Your task to perform on an android device: turn off translation in the chrome app Image 0: 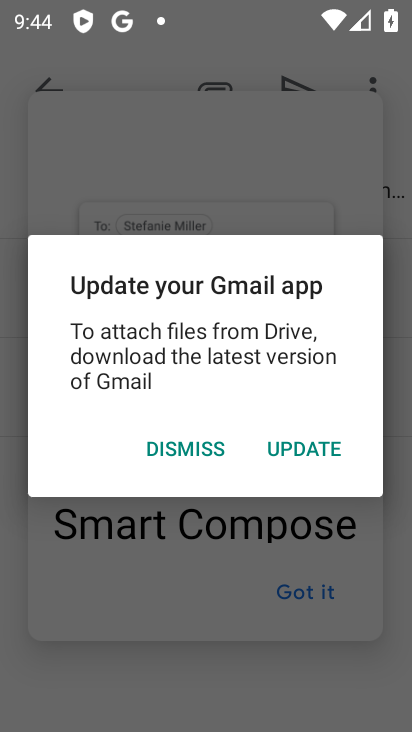
Step 0: press home button
Your task to perform on an android device: turn off translation in the chrome app Image 1: 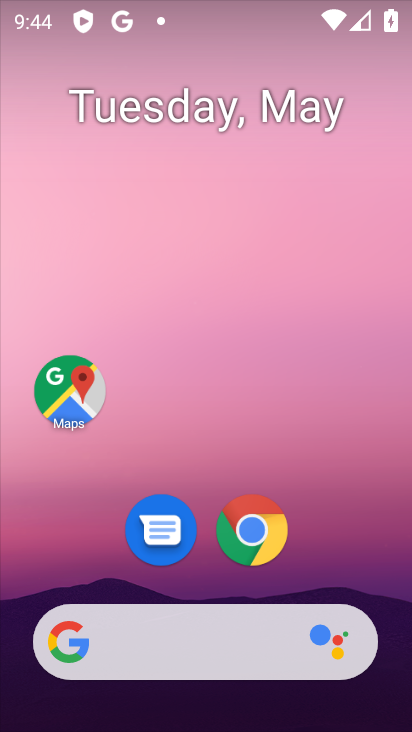
Step 1: click (248, 535)
Your task to perform on an android device: turn off translation in the chrome app Image 2: 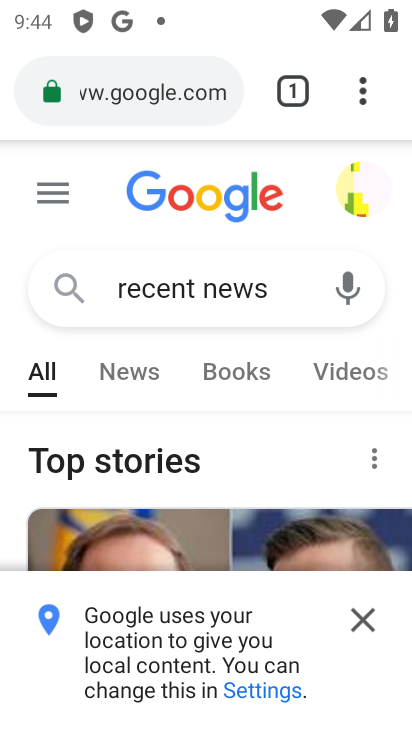
Step 2: click (361, 86)
Your task to perform on an android device: turn off translation in the chrome app Image 3: 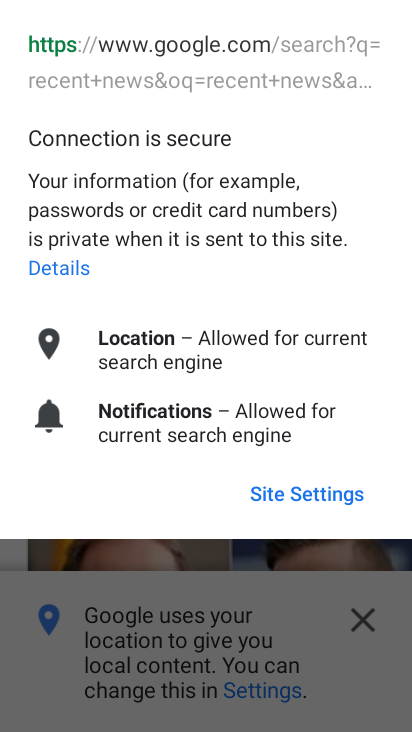
Step 3: click (167, 585)
Your task to perform on an android device: turn off translation in the chrome app Image 4: 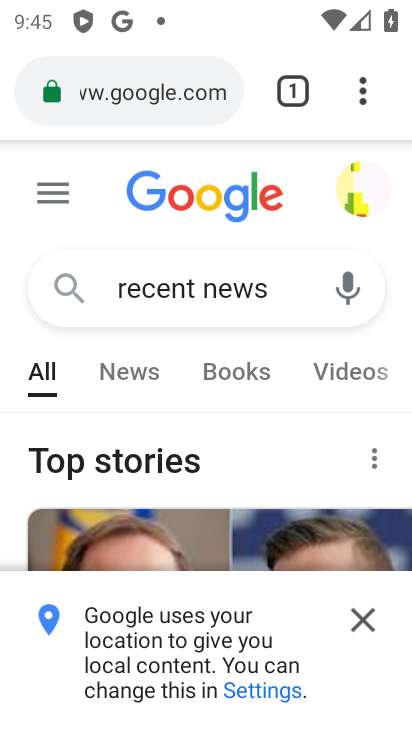
Step 4: click (362, 90)
Your task to perform on an android device: turn off translation in the chrome app Image 5: 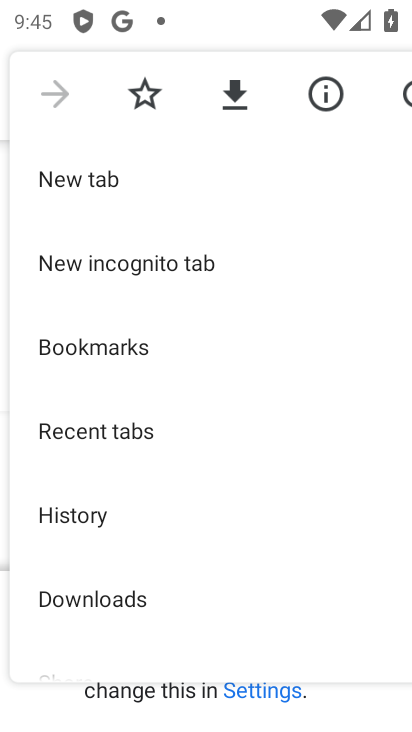
Step 5: drag from (226, 409) to (221, 181)
Your task to perform on an android device: turn off translation in the chrome app Image 6: 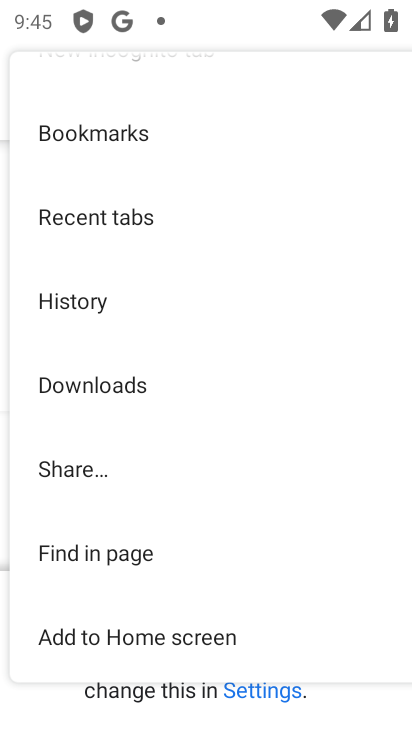
Step 6: drag from (119, 568) to (191, 192)
Your task to perform on an android device: turn off translation in the chrome app Image 7: 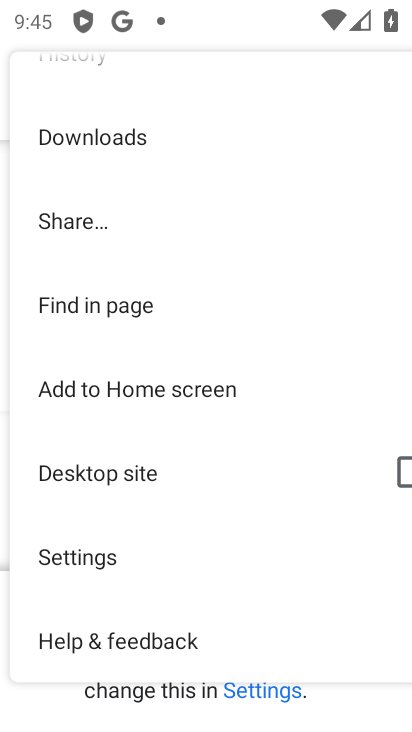
Step 7: click (92, 559)
Your task to perform on an android device: turn off translation in the chrome app Image 8: 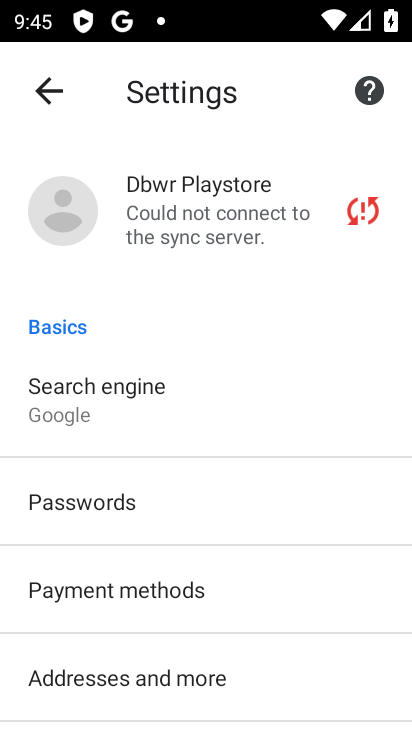
Step 8: drag from (187, 537) to (171, 258)
Your task to perform on an android device: turn off translation in the chrome app Image 9: 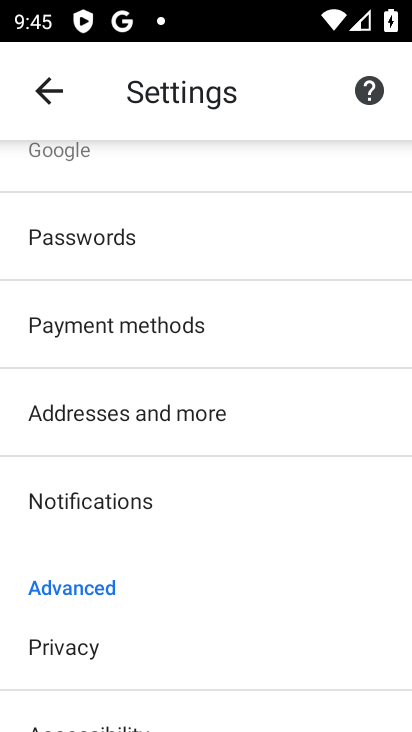
Step 9: drag from (181, 530) to (221, 309)
Your task to perform on an android device: turn off translation in the chrome app Image 10: 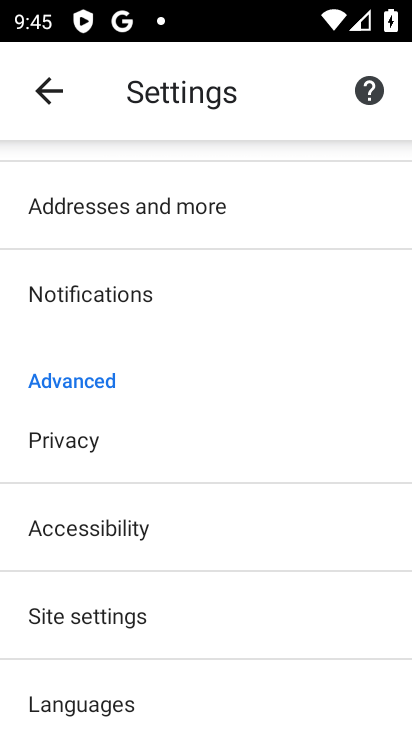
Step 10: click (109, 702)
Your task to perform on an android device: turn off translation in the chrome app Image 11: 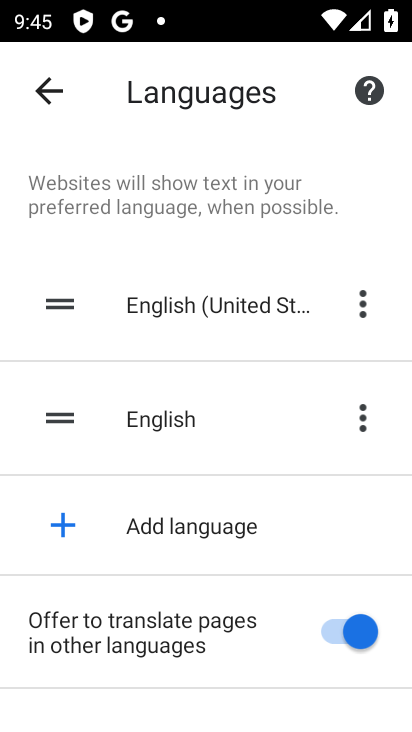
Step 11: click (338, 631)
Your task to perform on an android device: turn off translation in the chrome app Image 12: 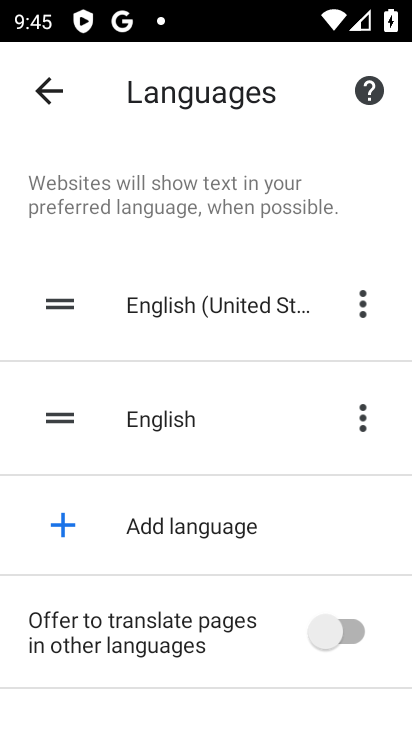
Step 12: task complete